Your task to perform on an android device: Search for seafood restaurants on Google Maps Image 0: 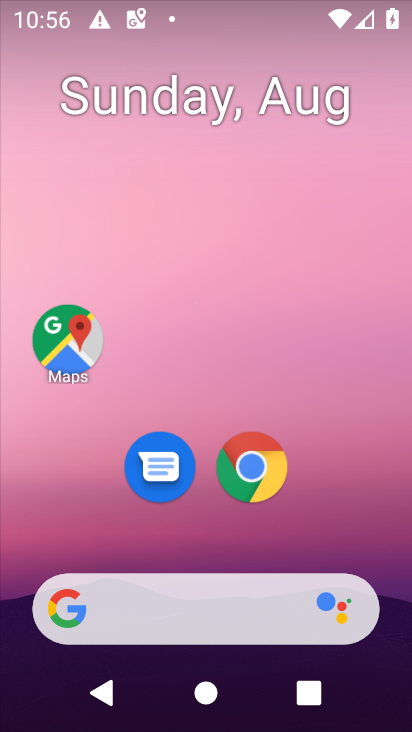
Step 0: drag from (177, 665) to (177, 173)
Your task to perform on an android device: Search for seafood restaurants on Google Maps Image 1: 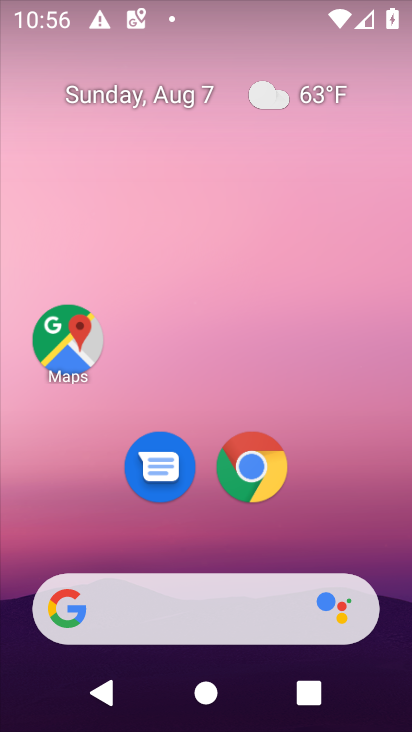
Step 1: drag from (218, 422) to (201, 208)
Your task to perform on an android device: Search for seafood restaurants on Google Maps Image 2: 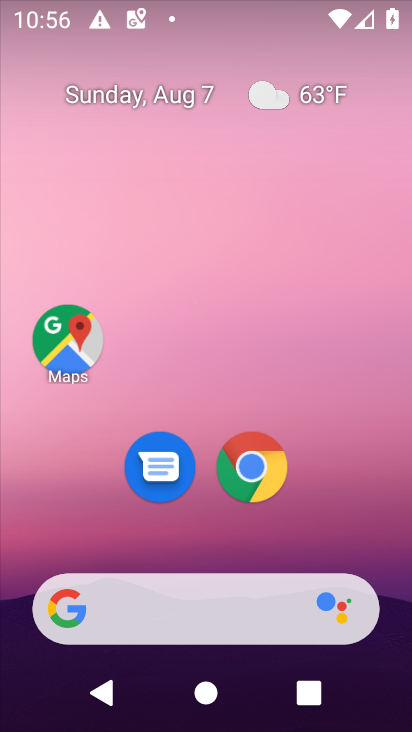
Step 2: drag from (241, 568) to (265, 87)
Your task to perform on an android device: Search for seafood restaurants on Google Maps Image 3: 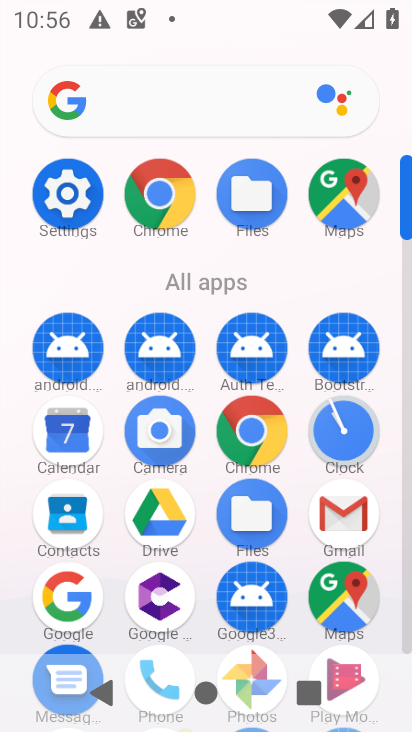
Step 3: click (334, 195)
Your task to perform on an android device: Search for seafood restaurants on Google Maps Image 4: 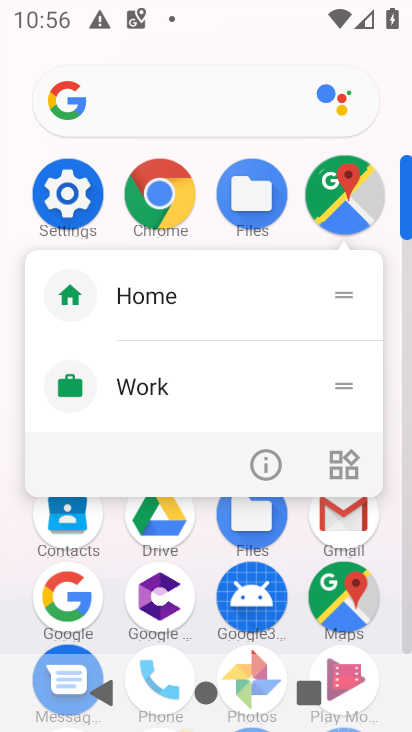
Step 4: click (346, 203)
Your task to perform on an android device: Search for seafood restaurants on Google Maps Image 5: 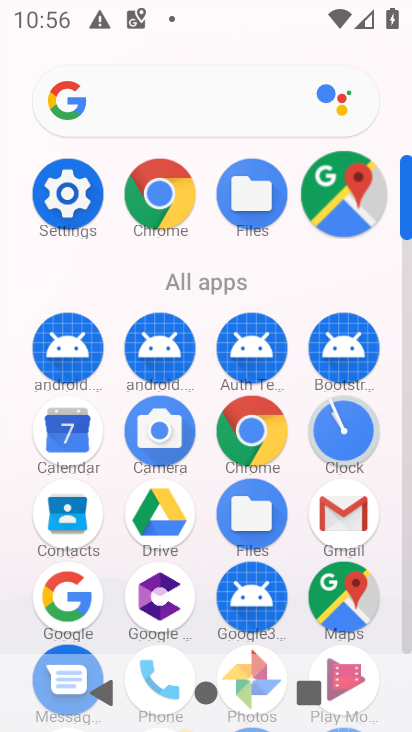
Step 5: click (346, 210)
Your task to perform on an android device: Search for seafood restaurants on Google Maps Image 6: 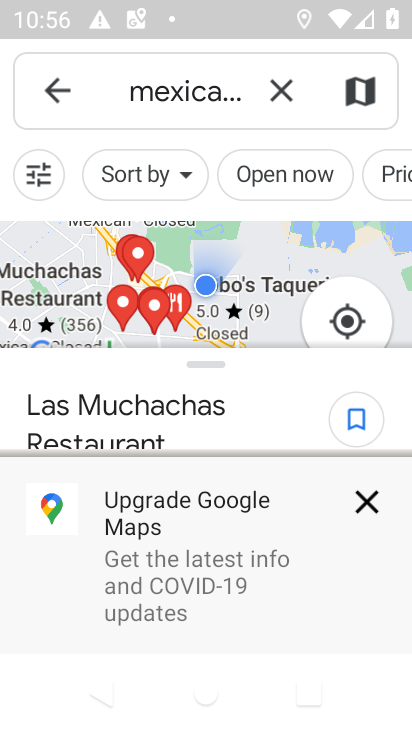
Step 6: click (267, 87)
Your task to perform on an android device: Search for seafood restaurants on Google Maps Image 7: 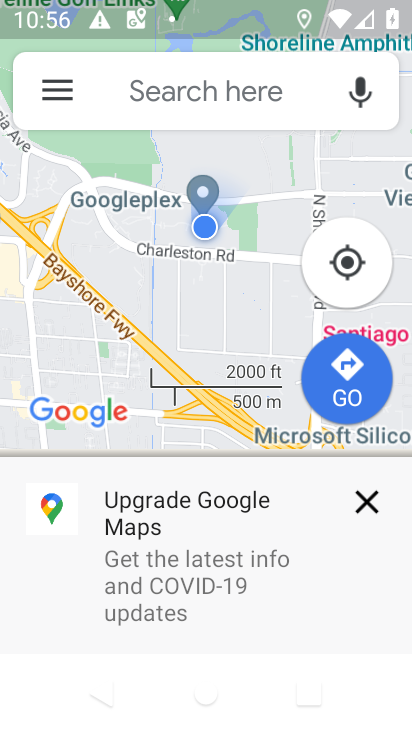
Step 7: click (140, 84)
Your task to perform on an android device: Search for seafood restaurants on Google Maps Image 8: 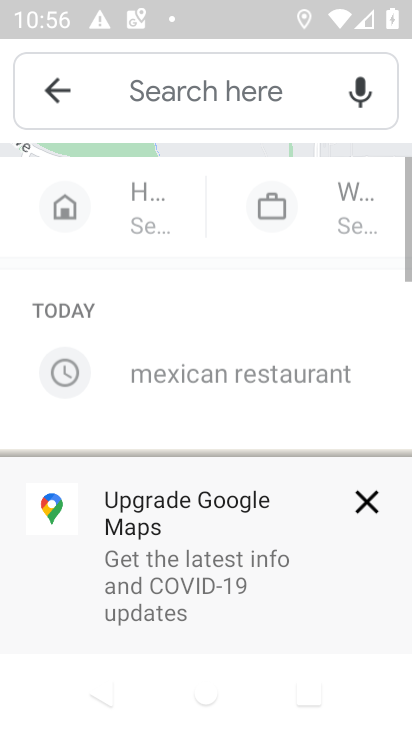
Step 8: click (144, 99)
Your task to perform on an android device: Search for seafood restaurants on Google Maps Image 9: 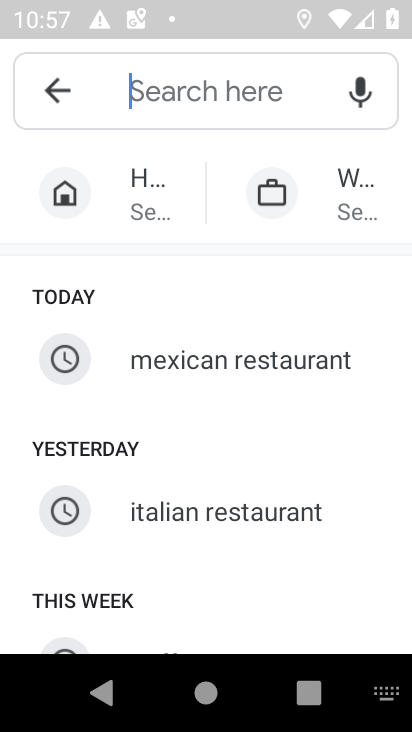
Step 9: type "seafodd restaurants"
Your task to perform on an android device: Search for seafood restaurants on Google Maps Image 10: 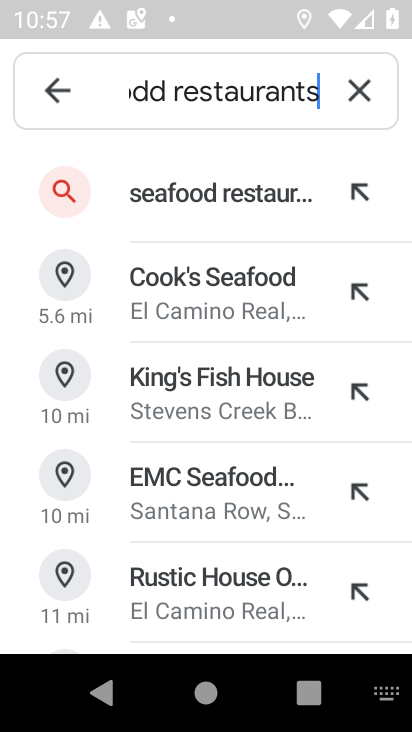
Step 10: click (217, 215)
Your task to perform on an android device: Search for seafood restaurants on Google Maps Image 11: 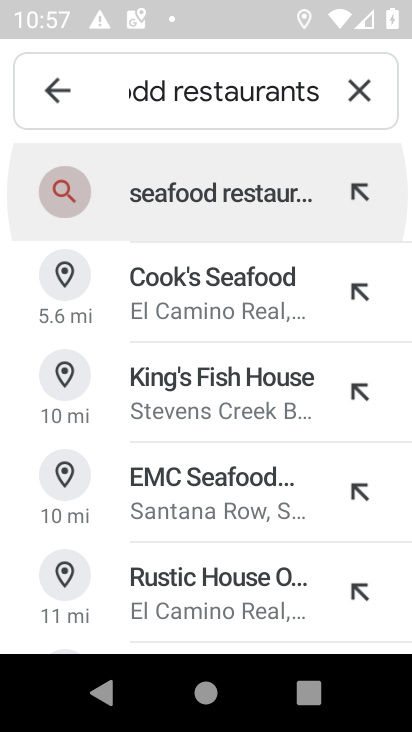
Step 11: click (223, 214)
Your task to perform on an android device: Search for seafood restaurants on Google Maps Image 12: 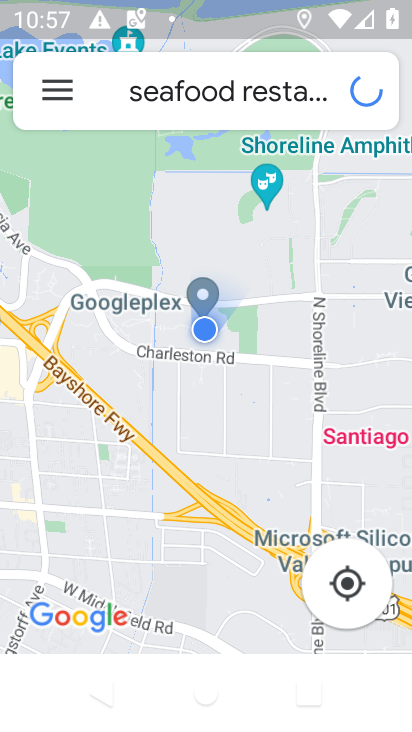
Step 12: click (255, 224)
Your task to perform on an android device: Search for seafood restaurants on Google Maps Image 13: 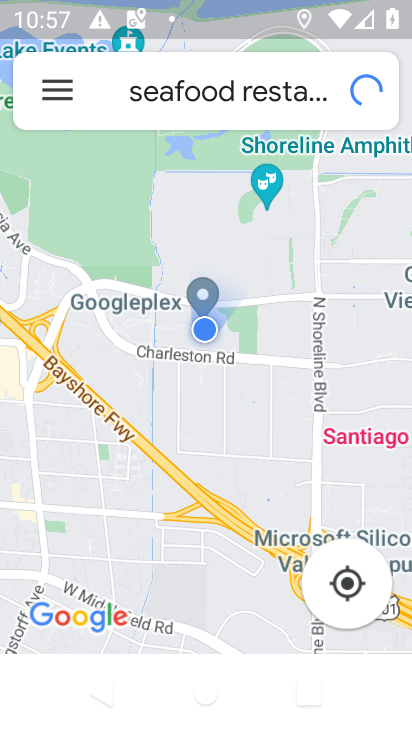
Step 13: click (275, 234)
Your task to perform on an android device: Search for seafood restaurants on Google Maps Image 14: 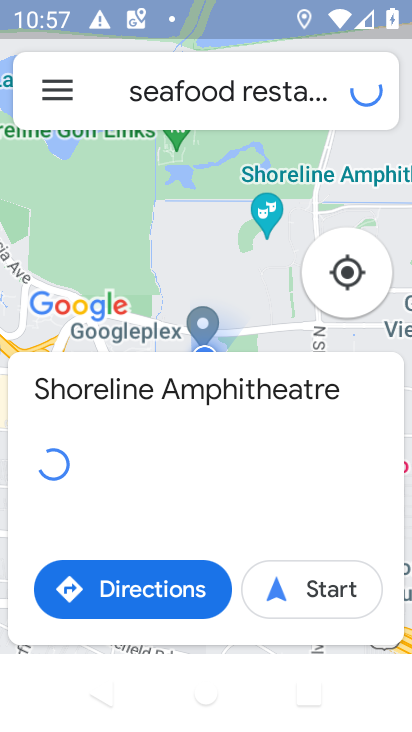
Step 14: task complete